Your task to perform on an android device: Is it going to rain this weekend? Image 0: 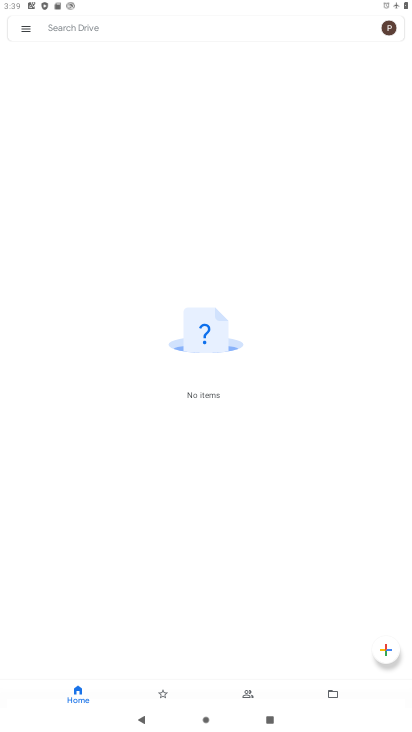
Step 0: press home button
Your task to perform on an android device: Is it going to rain this weekend? Image 1: 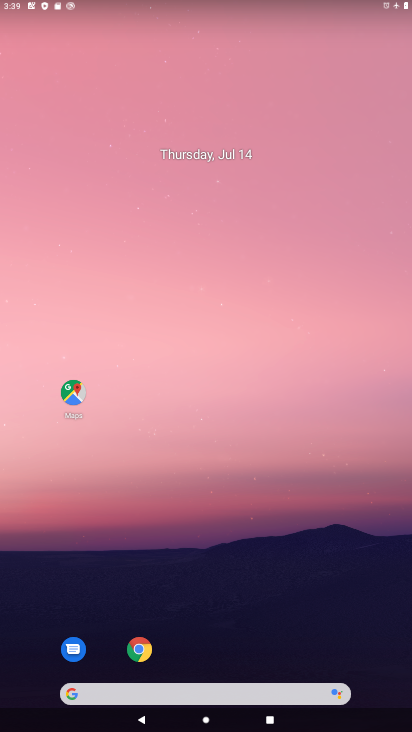
Step 1: click (148, 687)
Your task to perform on an android device: Is it going to rain this weekend? Image 2: 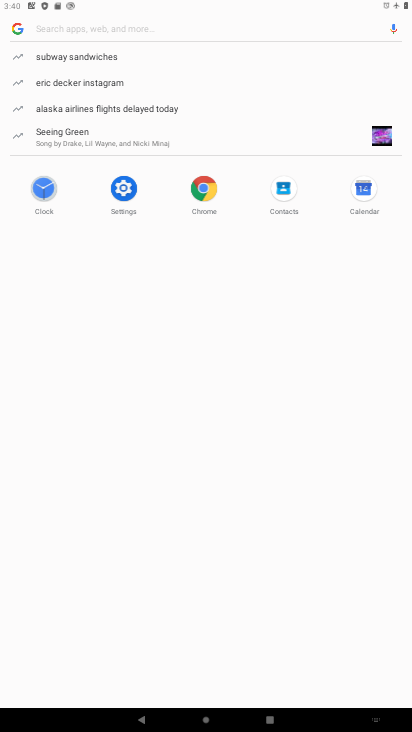
Step 2: type "weather"
Your task to perform on an android device: Is it going to rain this weekend? Image 3: 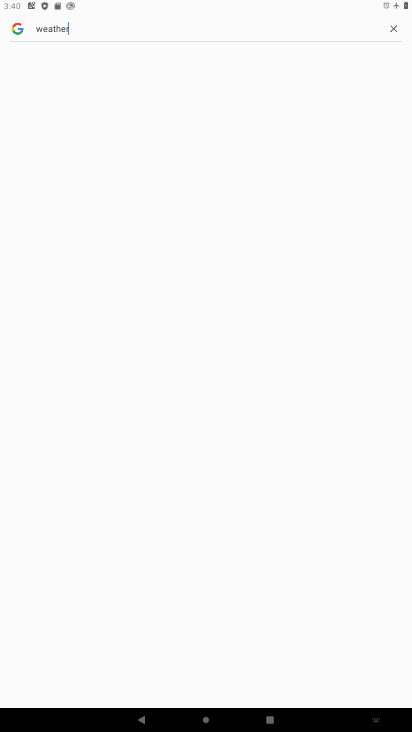
Step 3: click (114, 32)
Your task to perform on an android device: Is it going to rain this weekend? Image 4: 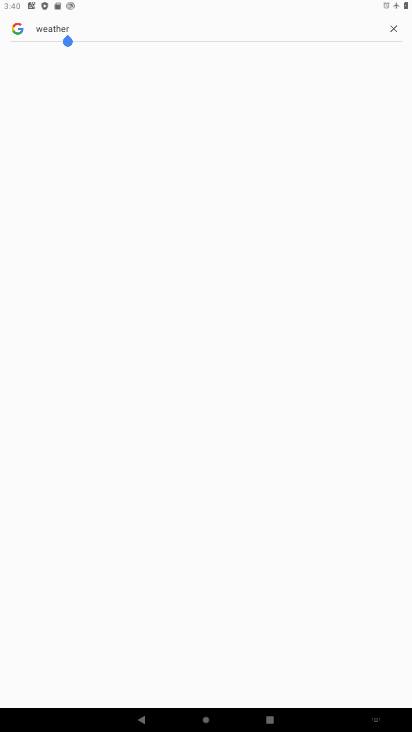
Step 4: task complete